Your task to perform on an android device: toggle javascript in the chrome app Image 0: 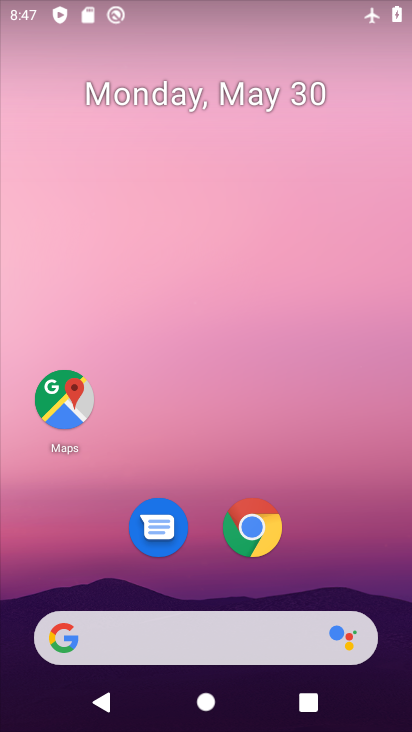
Step 0: drag from (318, 615) to (294, 6)
Your task to perform on an android device: toggle javascript in the chrome app Image 1: 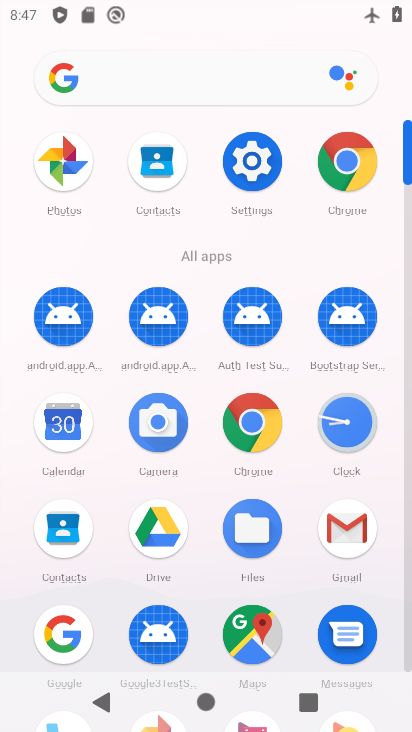
Step 1: click (274, 429)
Your task to perform on an android device: toggle javascript in the chrome app Image 2: 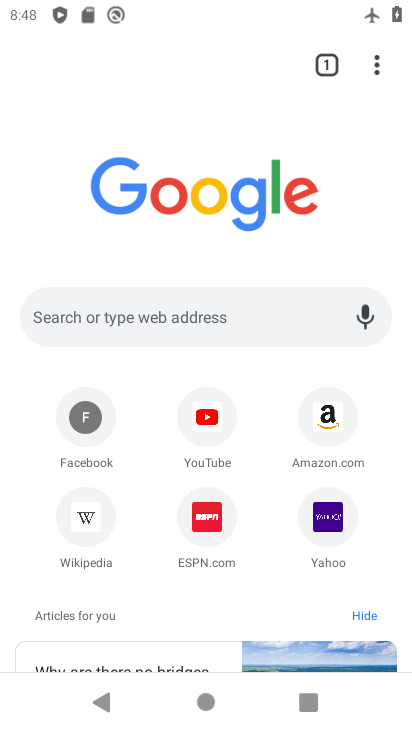
Step 2: click (371, 54)
Your task to perform on an android device: toggle javascript in the chrome app Image 3: 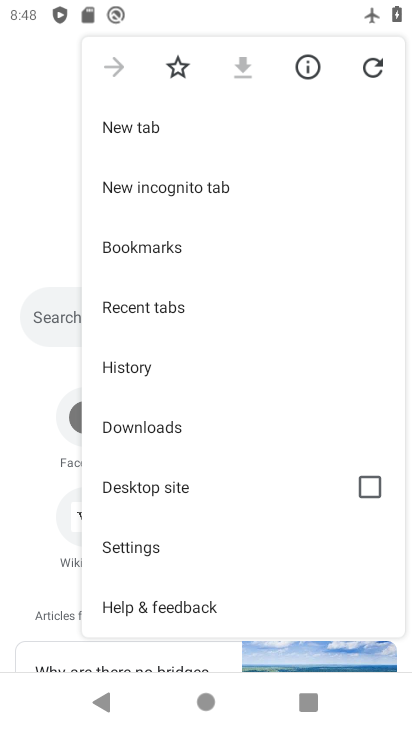
Step 3: click (183, 536)
Your task to perform on an android device: toggle javascript in the chrome app Image 4: 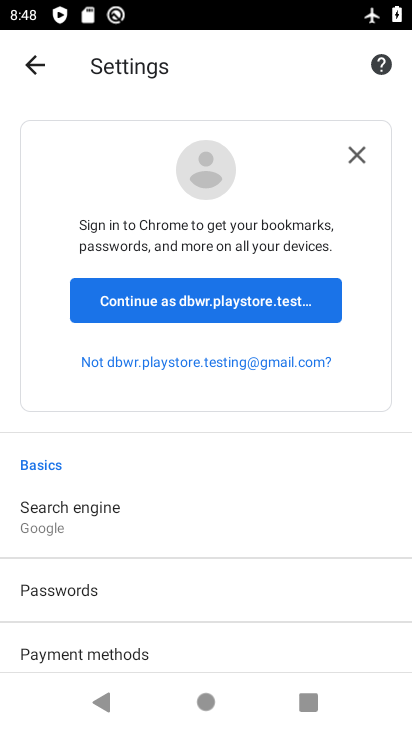
Step 4: drag from (215, 548) to (154, 0)
Your task to perform on an android device: toggle javascript in the chrome app Image 5: 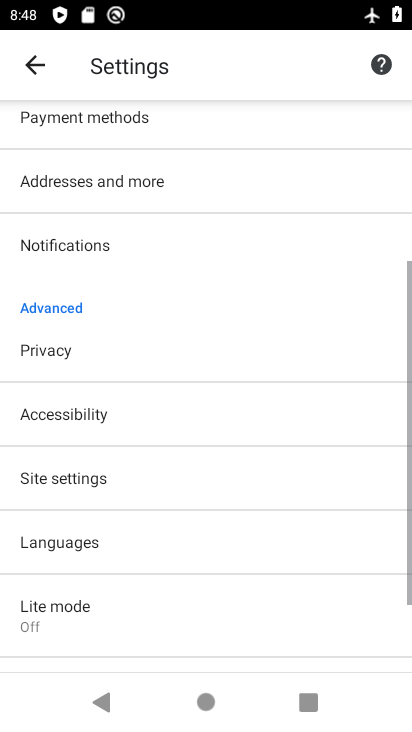
Step 5: click (152, 483)
Your task to perform on an android device: toggle javascript in the chrome app Image 6: 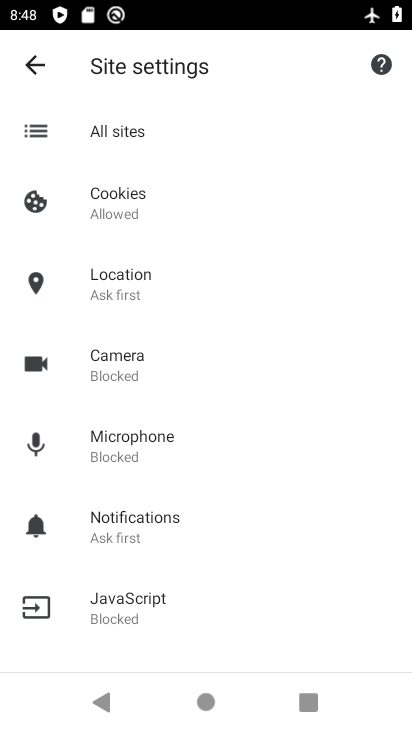
Step 6: click (151, 591)
Your task to perform on an android device: toggle javascript in the chrome app Image 7: 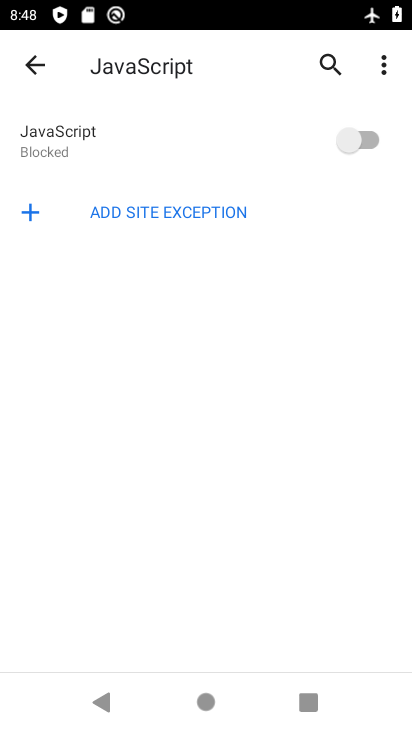
Step 7: click (371, 138)
Your task to perform on an android device: toggle javascript in the chrome app Image 8: 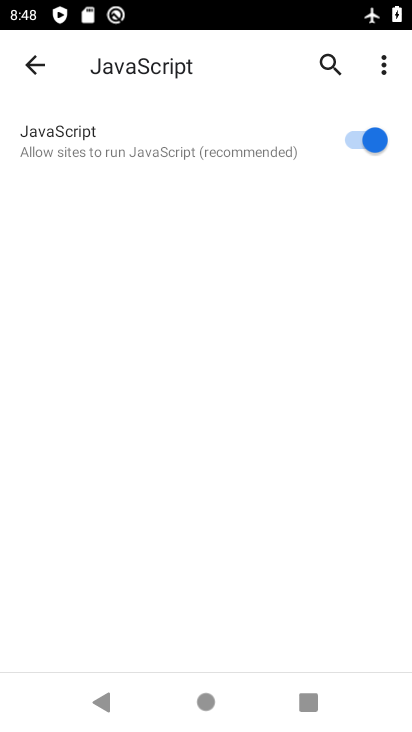
Step 8: task complete